Your task to perform on an android device: Search for Italian restaurants on Maps Image 0: 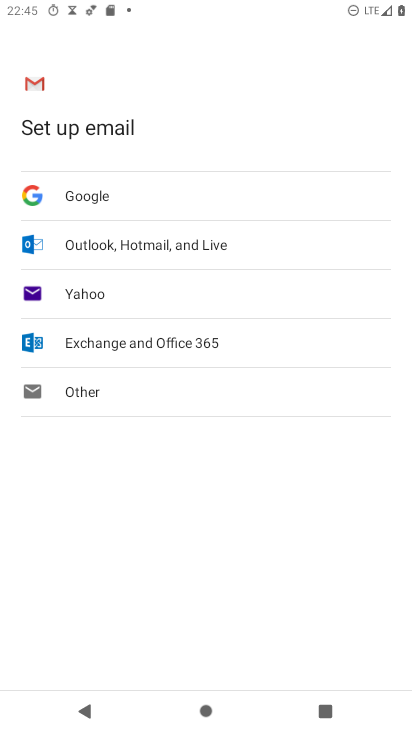
Step 0: press back button
Your task to perform on an android device: Search for Italian restaurants on Maps Image 1: 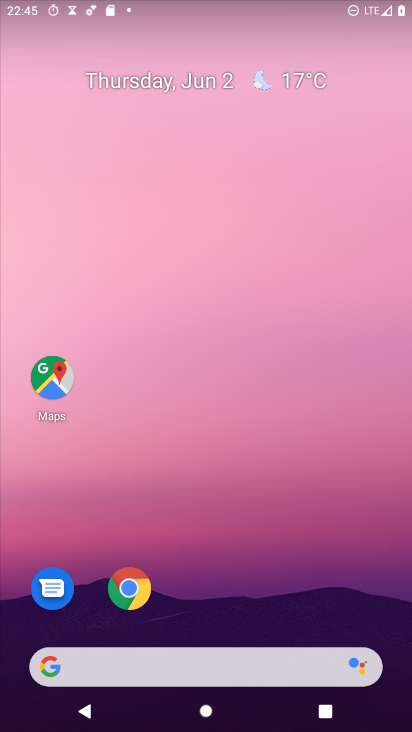
Step 1: click (24, 362)
Your task to perform on an android device: Search for Italian restaurants on Maps Image 2: 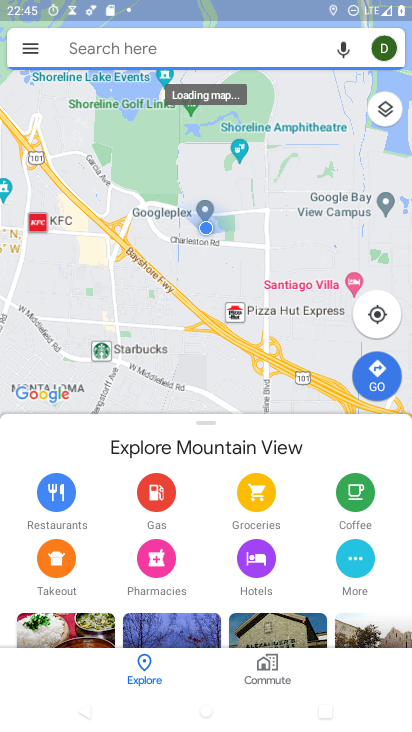
Step 2: click (129, 36)
Your task to perform on an android device: Search for Italian restaurants on Maps Image 3: 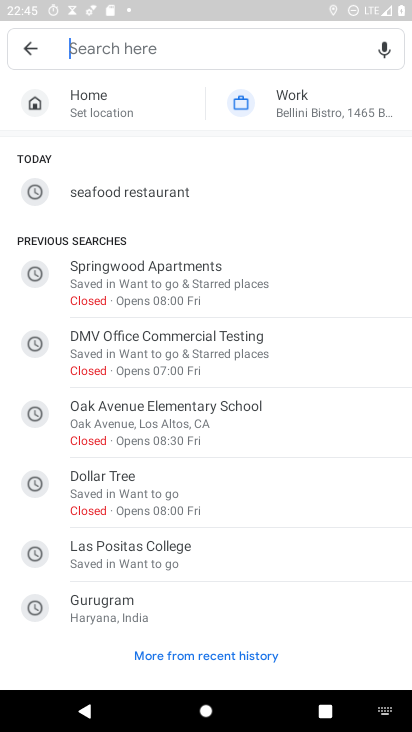
Step 3: drag from (171, 589) to (243, 176)
Your task to perform on an android device: Search for Italian restaurants on Maps Image 4: 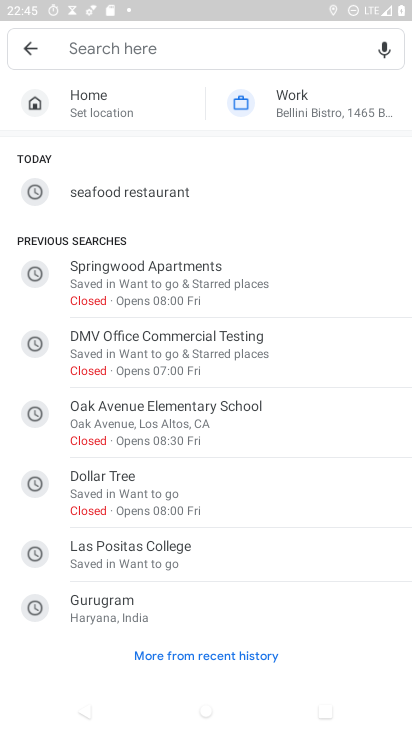
Step 4: click (107, 43)
Your task to perform on an android device: Search for Italian restaurants on Maps Image 5: 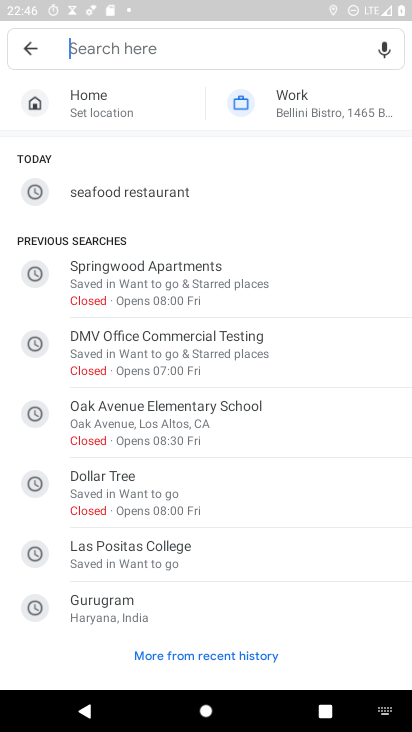
Step 5: type "italian restaurants"
Your task to perform on an android device: Search for Italian restaurants on Maps Image 6: 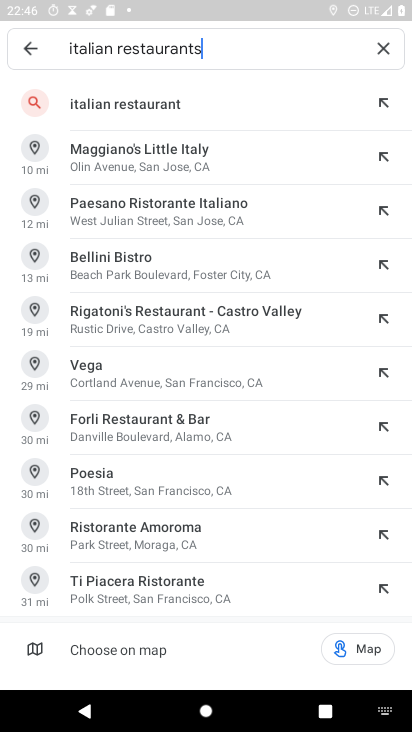
Step 6: click (193, 108)
Your task to perform on an android device: Search for Italian restaurants on Maps Image 7: 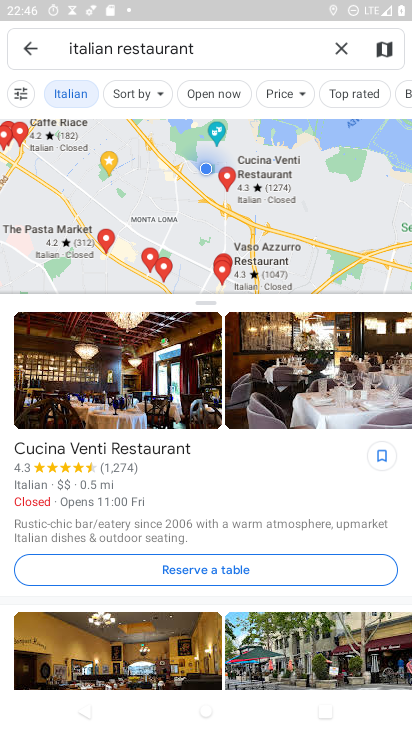
Step 7: task complete